Your task to perform on an android device: Open the stopwatch Image 0: 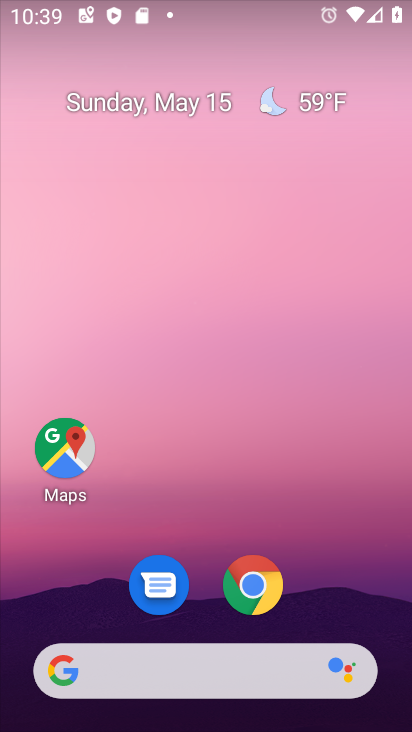
Step 0: drag from (255, 469) to (278, 50)
Your task to perform on an android device: Open the stopwatch Image 1: 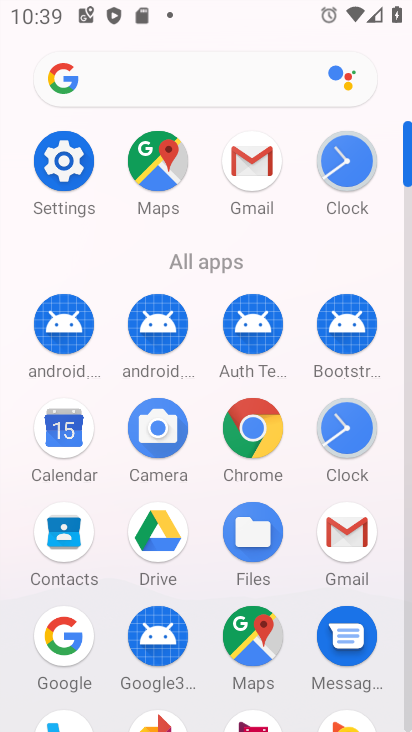
Step 1: click (359, 159)
Your task to perform on an android device: Open the stopwatch Image 2: 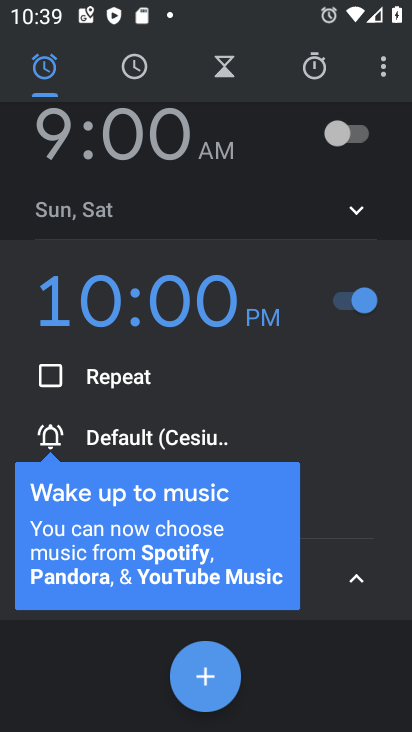
Step 2: click (322, 65)
Your task to perform on an android device: Open the stopwatch Image 3: 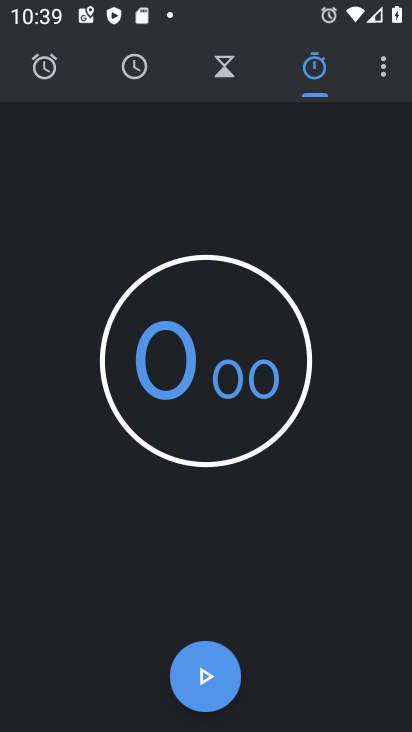
Step 3: task complete